Your task to perform on an android device: turn pop-ups off in chrome Image 0: 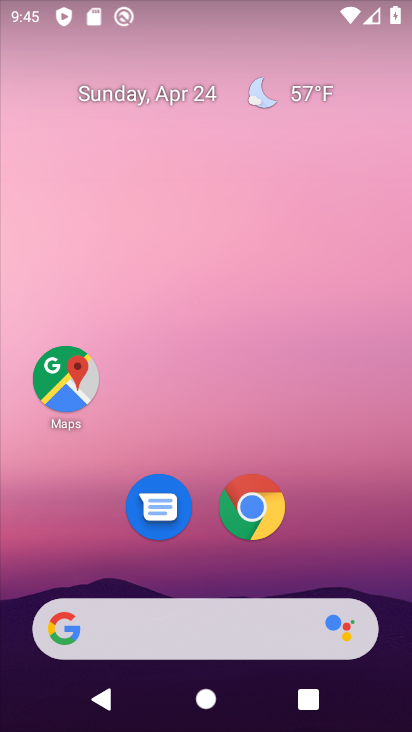
Step 0: click (244, 526)
Your task to perform on an android device: turn pop-ups off in chrome Image 1: 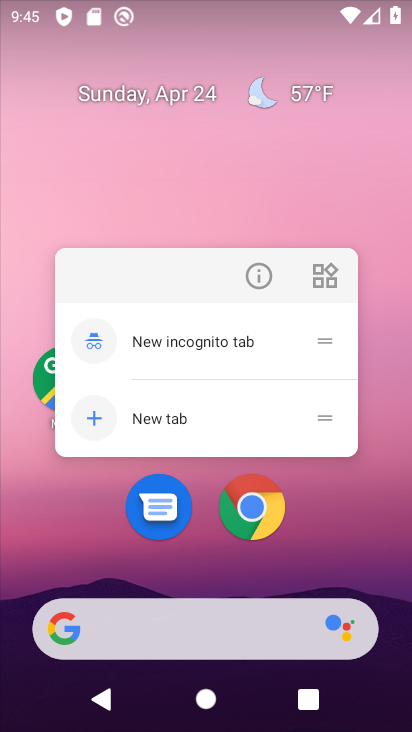
Step 1: click (265, 508)
Your task to perform on an android device: turn pop-ups off in chrome Image 2: 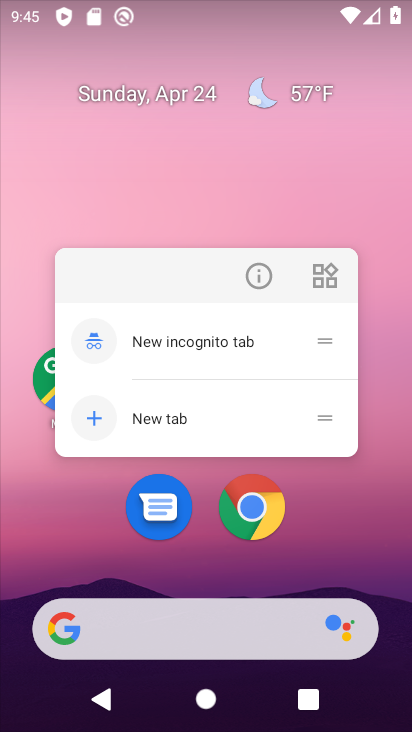
Step 2: click (263, 526)
Your task to perform on an android device: turn pop-ups off in chrome Image 3: 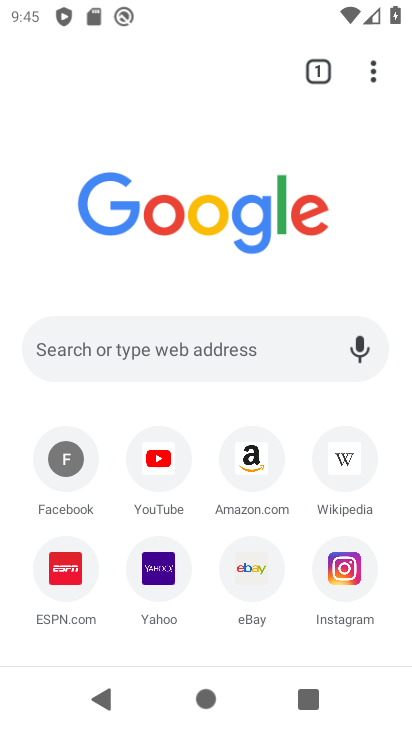
Step 3: click (375, 91)
Your task to perform on an android device: turn pop-ups off in chrome Image 4: 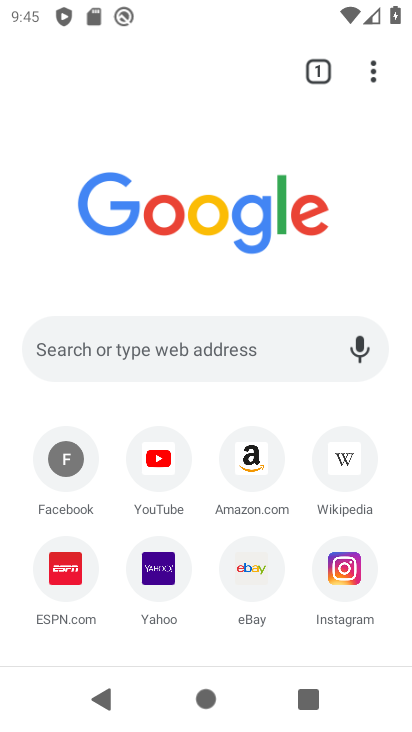
Step 4: drag from (372, 82) to (207, 491)
Your task to perform on an android device: turn pop-ups off in chrome Image 5: 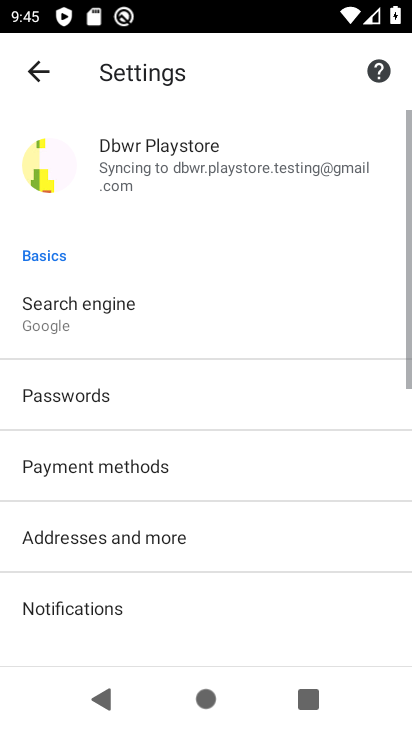
Step 5: drag from (126, 572) to (252, 165)
Your task to perform on an android device: turn pop-ups off in chrome Image 6: 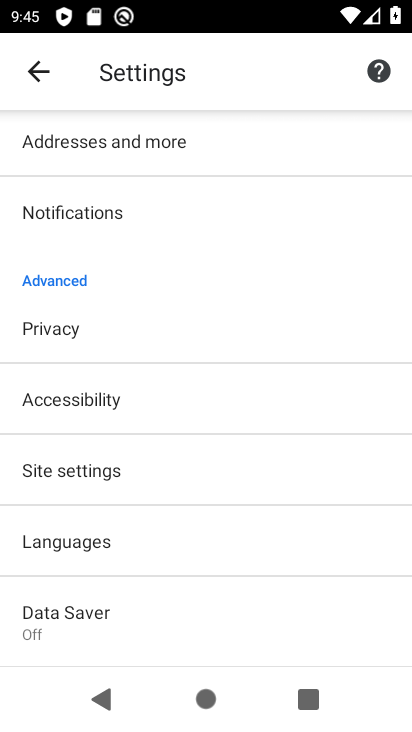
Step 6: click (123, 478)
Your task to perform on an android device: turn pop-ups off in chrome Image 7: 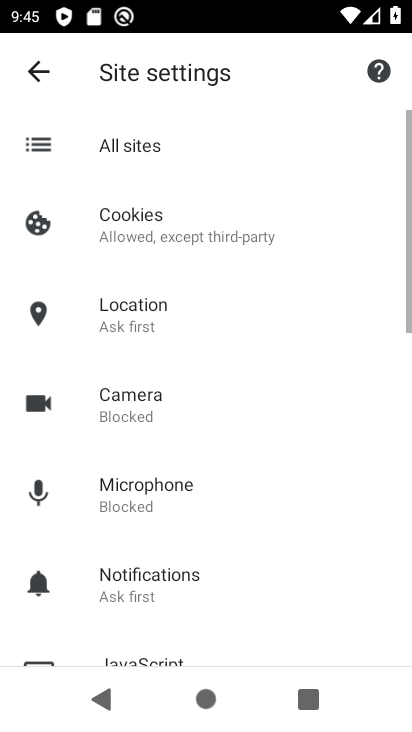
Step 7: drag from (140, 529) to (261, 139)
Your task to perform on an android device: turn pop-ups off in chrome Image 8: 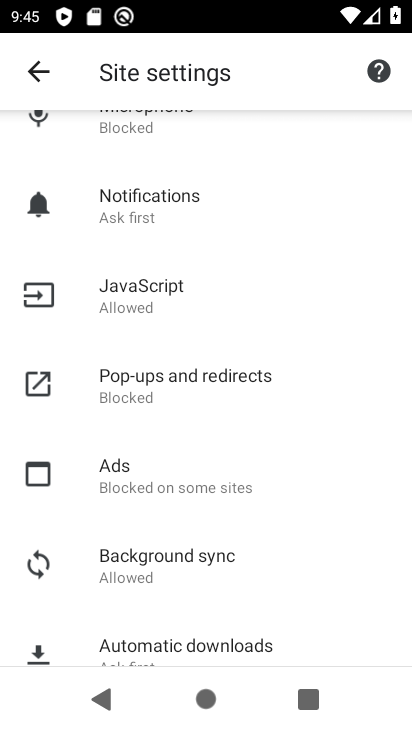
Step 8: click (234, 392)
Your task to perform on an android device: turn pop-ups off in chrome Image 9: 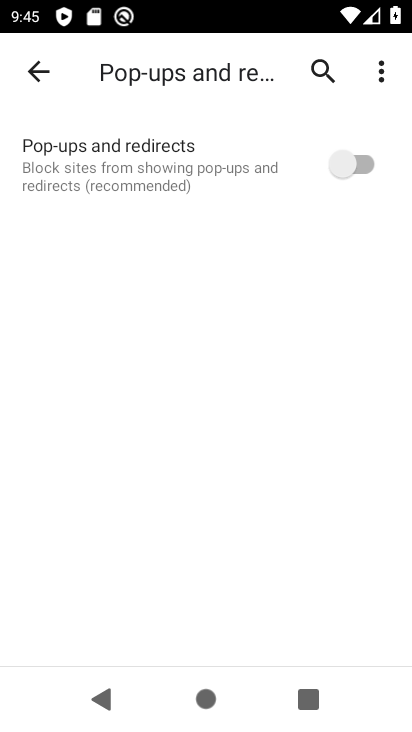
Step 9: task complete